Your task to perform on an android device: Go to Android settings Image 0: 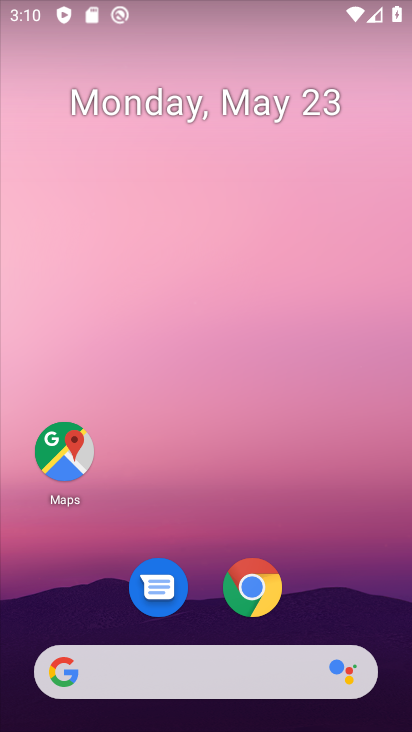
Step 0: drag from (156, 681) to (215, 259)
Your task to perform on an android device: Go to Android settings Image 1: 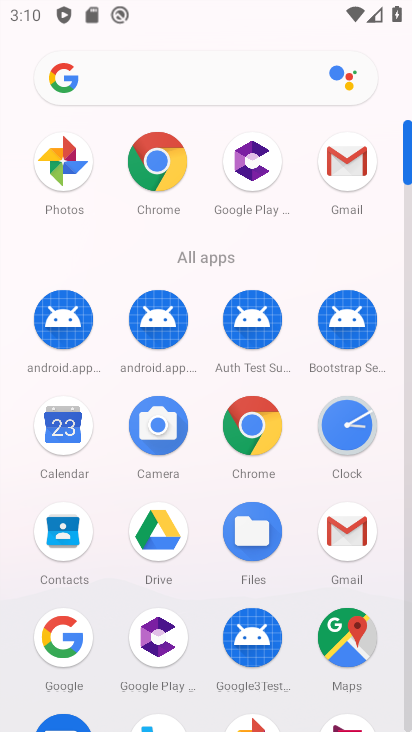
Step 1: drag from (187, 642) to (294, 278)
Your task to perform on an android device: Go to Android settings Image 2: 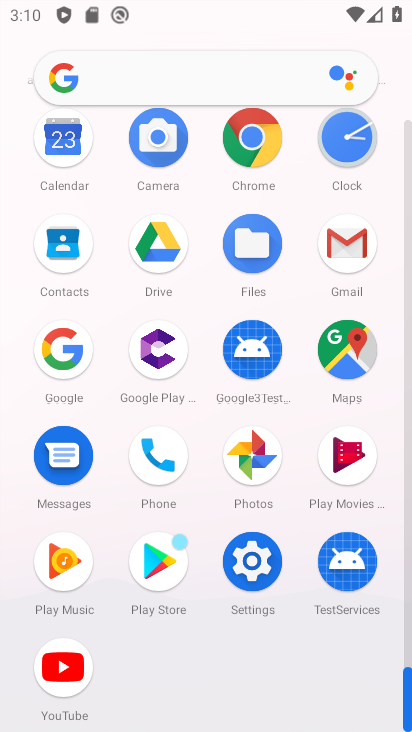
Step 2: click (261, 570)
Your task to perform on an android device: Go to Android settings Image 3: 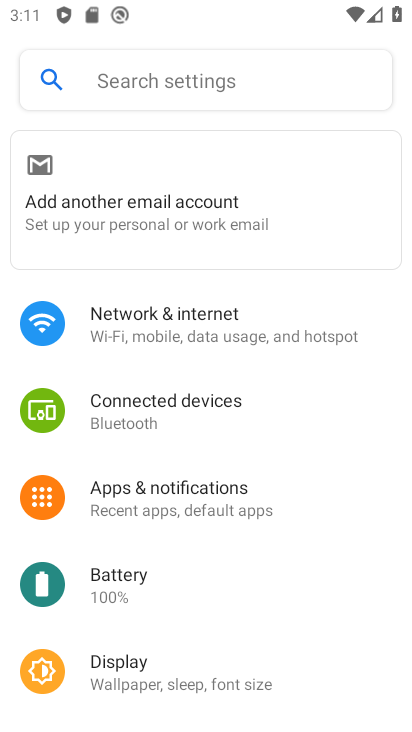
Step 3: task complete